Your task to perform on an android device: delete browsing data in the chrome app Image 0: 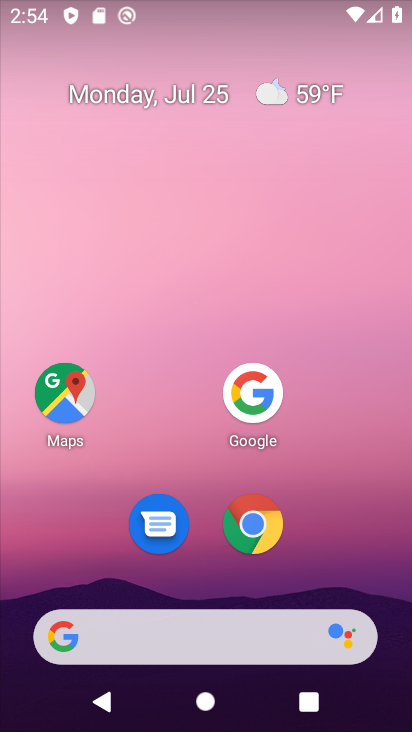
Step 0: click (255, 528)
Your task to perform on an android device: delete browsing data in the chrome app Image 1: 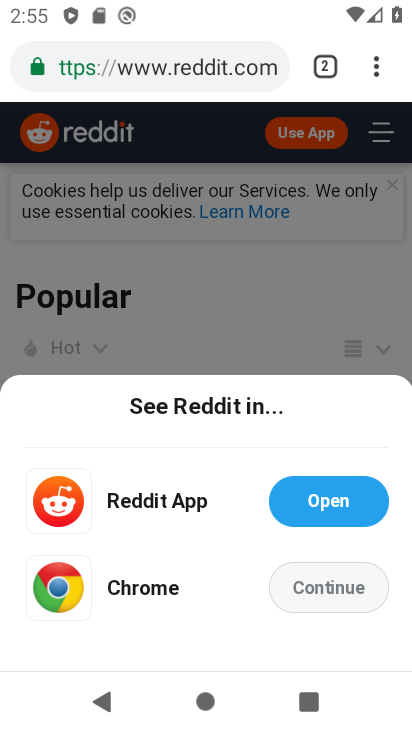
Step 1: drag from (376, 76) to (210, 530)
Your task to perform on an android device: delete browsing data in the chrome app Image 2: 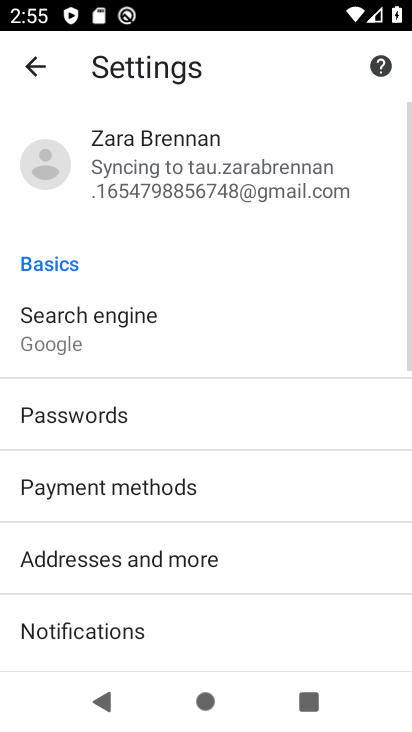
Step 2: drag from (174, 604) to (237, 162)
Your task to perform on an android device: delete browsing data in the chrome app Image 3: 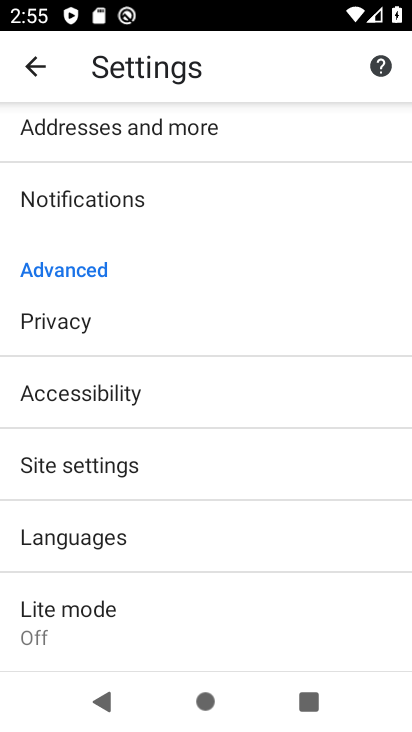
Step 3: click (171, 335)
Your task to perform on an android device: delete browsing data in the chrome app Image 4: 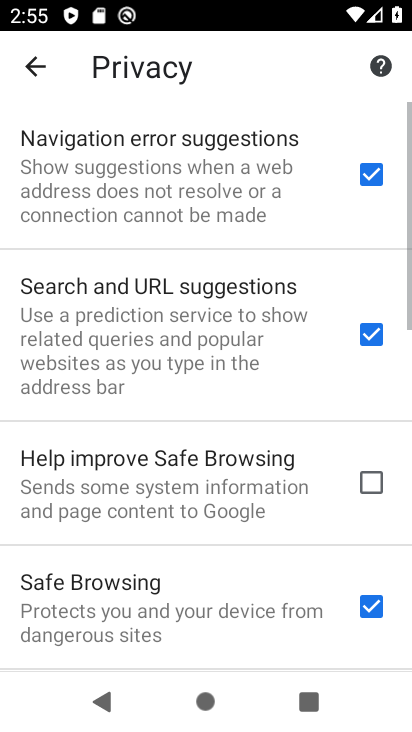
Step 4: drag from (207, 617) to (339, 71)
Your task to perform on an android device: delete browsing data in the chrome app Image 5: 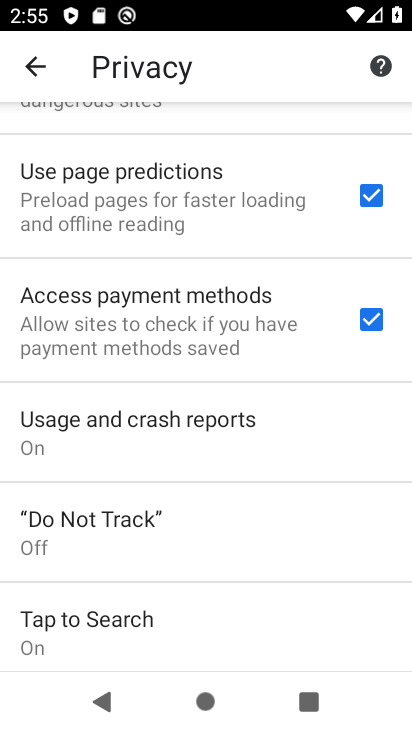
Step 5: drag from (220, 588) to (337, 114)
Your task to perform on an android device: delete browsing data in the chrome app Image 6: 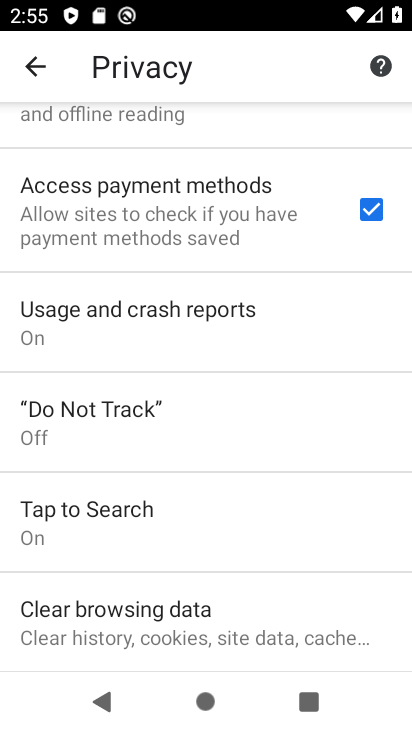
Step 6: click (258, 628)
Your task to perform on an android device: delete browsing data in the chrome app Image 7: 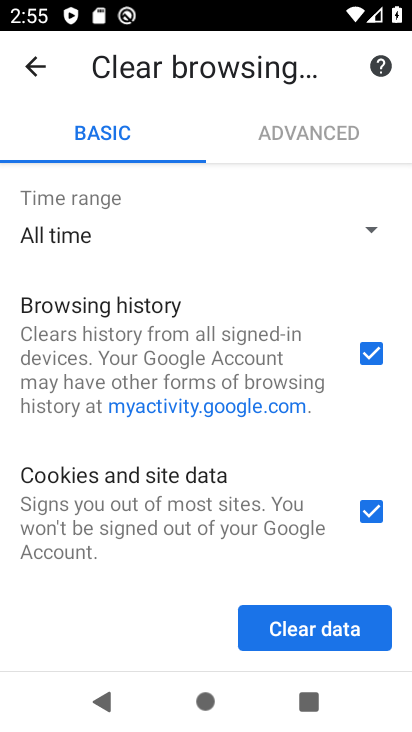
Step 7: drag from (267, 518) to (346, 256)
Your task to perform on an android device: delete browsing data in the chrome app Image 8: 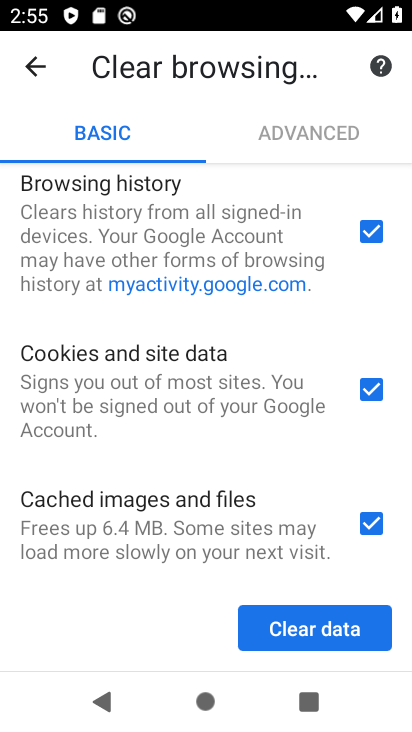
Step 8: click (317, 638)
Your task to perform on an android device: delete browsing data in the chrome app Image 9: 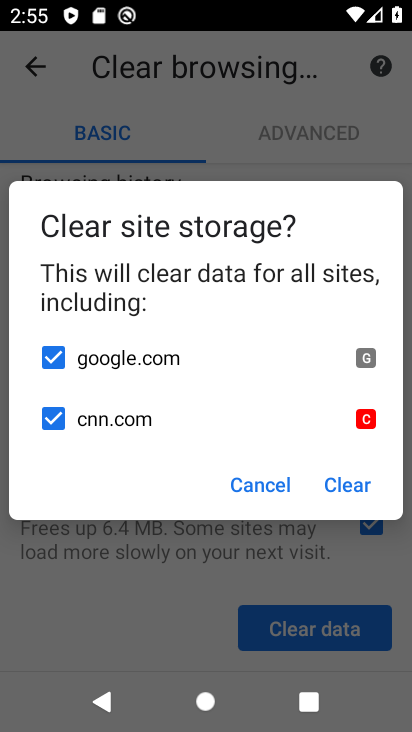
Step 9: click (351, 476)
Your task to perform on an android device: delete browsing data in the chrome app Image 10: 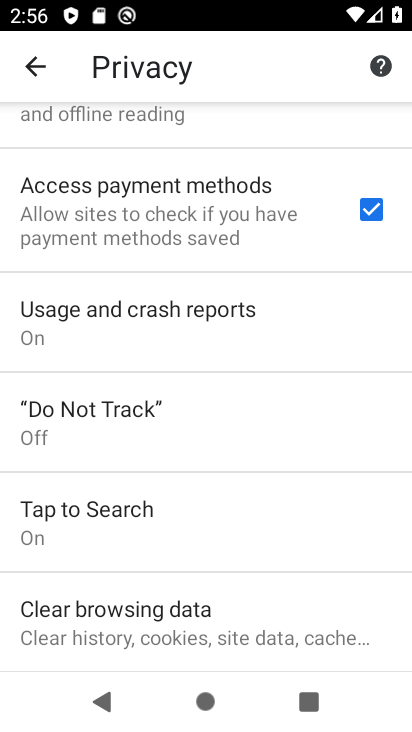
Step 10: task complete